Your task to perform on an android device: Open the map Image 0: 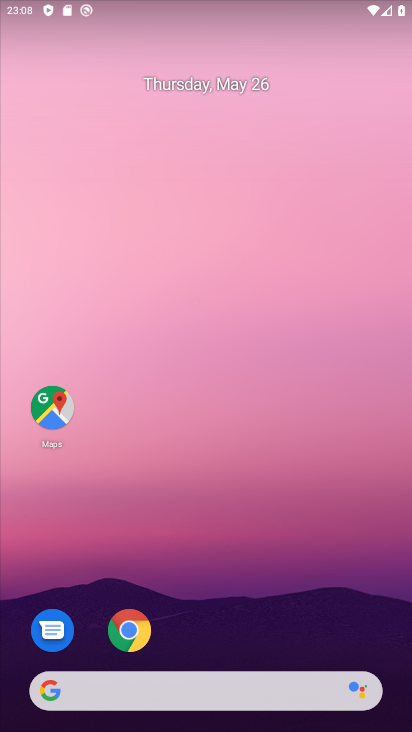
Step 0: click (49, 409)
Your task to perform on an android device: Open the map Image 1: 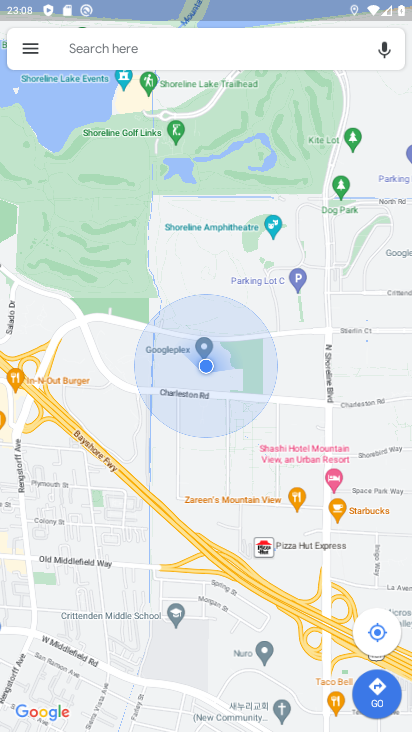
Step 1: task complete